Your task to perform on an android device: all mails in gmail Image 0: 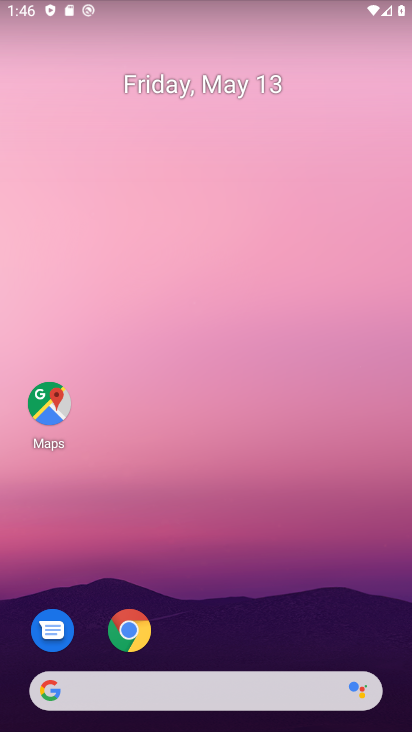
Step 0: click (298, 622)
Your task to perform on an android device: all mails in gmail Image 1: 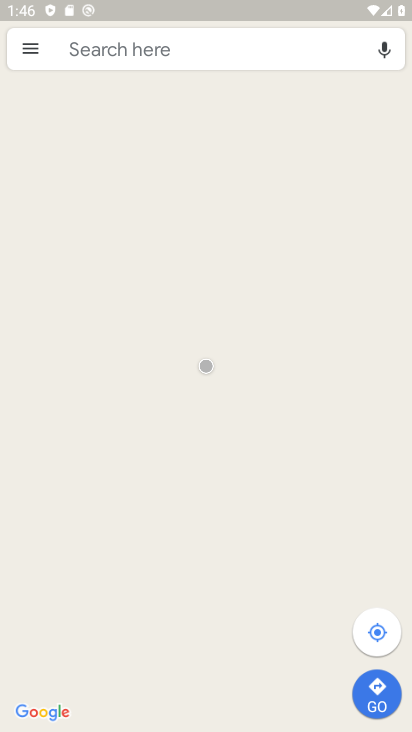
Step 1: press home button
Your task to perform on an android device: all mails in gmail Image 2: 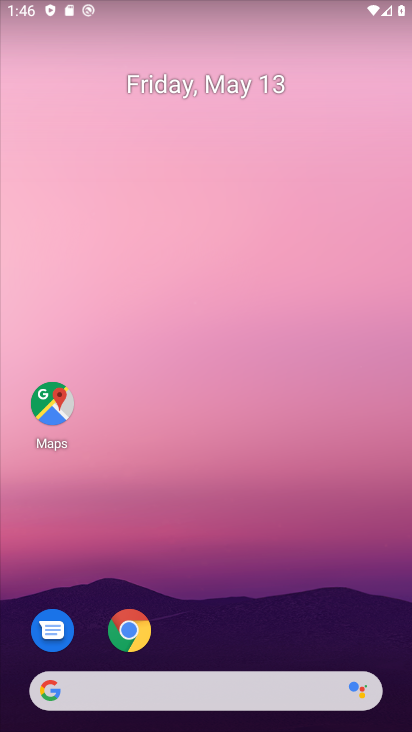
Step 2: drag from (238, 626) to (169, 6)
Your task to perform on an android device: all mails in gmail Image 3: 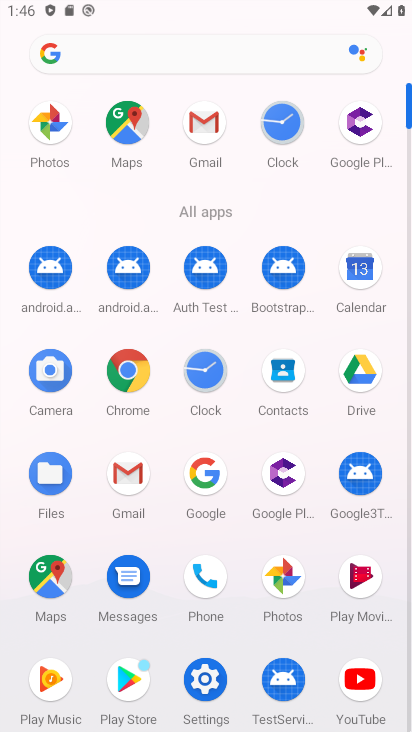
Step 3: click (129, 468)
Your task to perform on an android device: all mails in gmail Image 4: 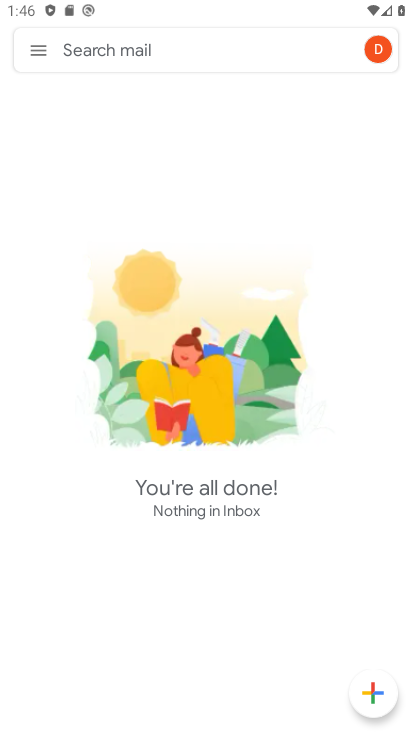
Step 4: click (46, 50)
Your task to perform on an android device: all mails in gmail Image 5: 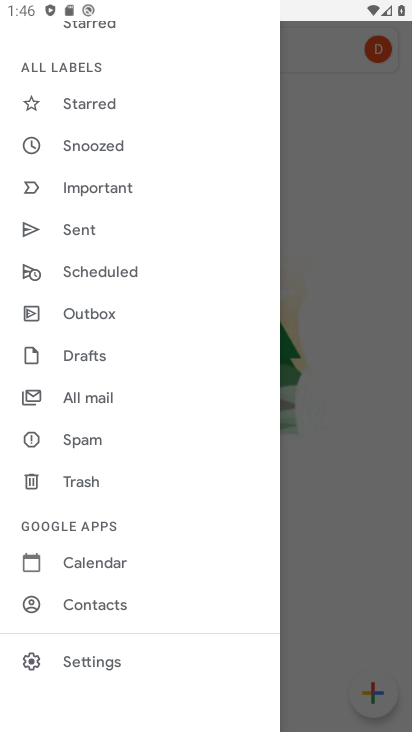
Step 5: click (102, 402)
Your task to perform on an android device: all mails in gmail Image 6: 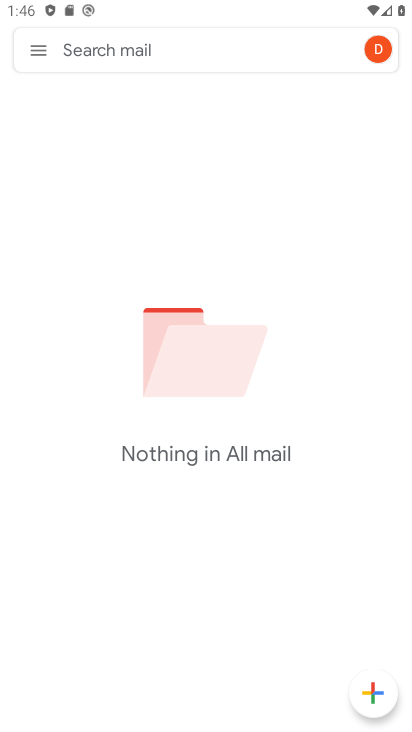
Step 6: task complete